Your task to perform on an android device: turn vacation reply on in the gmail app Image 0: 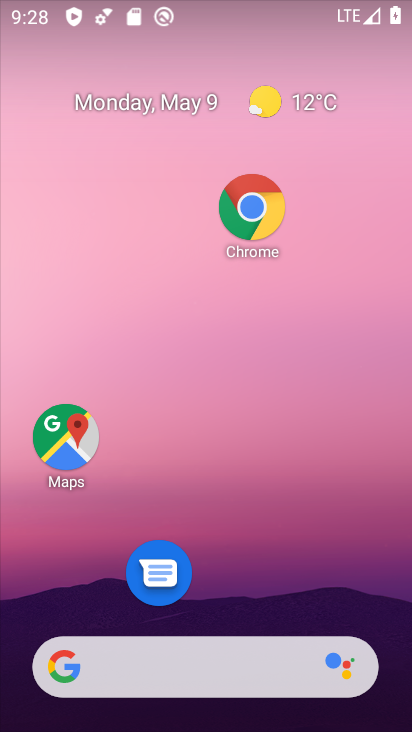
Step 0: drag from (285, 556) to (191, 256)
Your task to perform on an android device: turn vacation reply on in the gmail app Image 1: 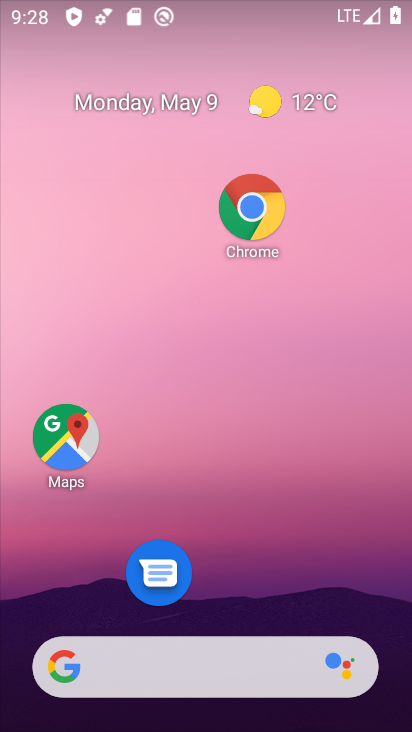
Step 1: drag from (356, 583) to (278, 232)
Your task to perform on an android device: turn vacation reply on in the gmail app Image 2: 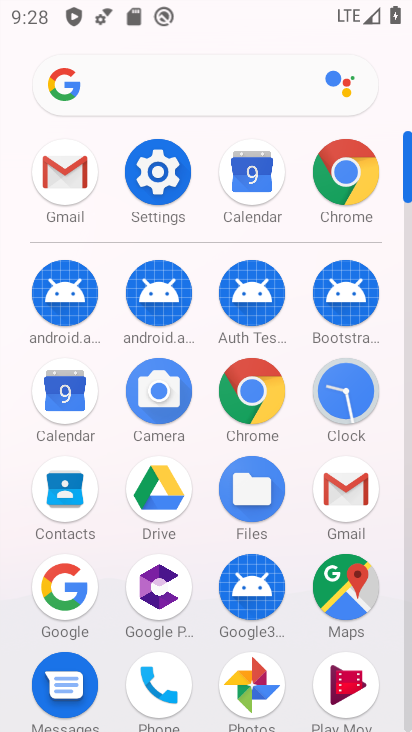
Step 2: click (332, 517)
Your task to perform on an android device: turn vacation reply on in the gmail app Image 3: 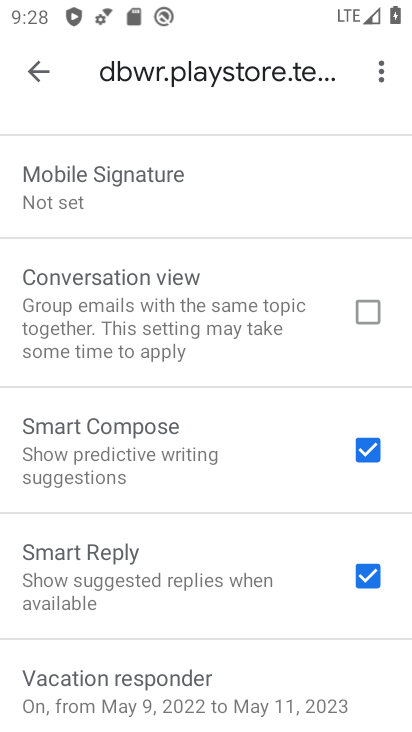
Step 3: task complete